Your task to perform on an android device: change alarm snooze length Image 0: 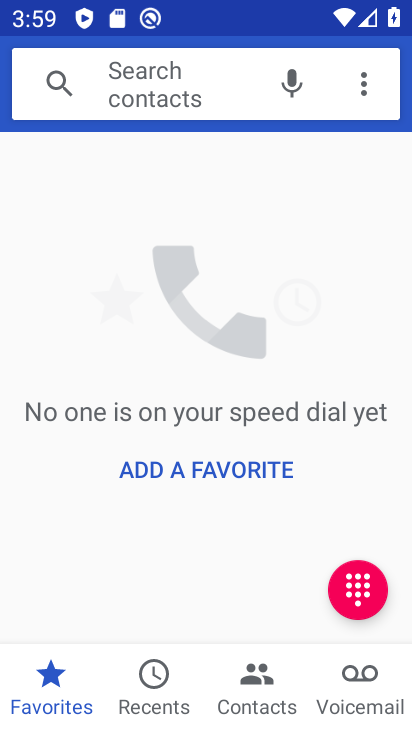
Step 0: press home button
Your task to perform on an android device: change alarm snooze length Image 1: 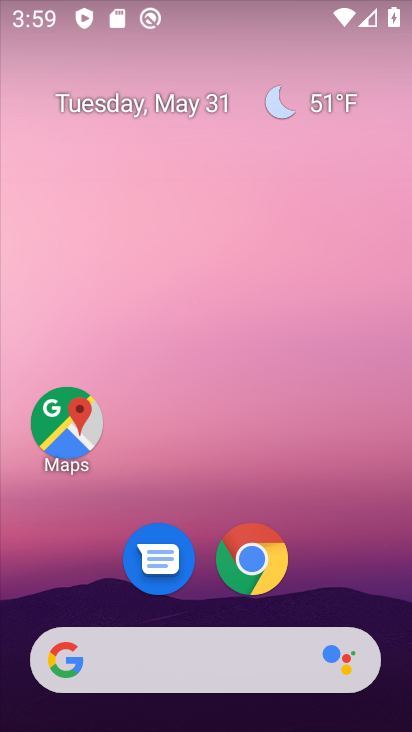
Step 1: drag from (347, 597) to (307, 48)
Your task to perform on an android device: change alarm snooze length Image 2: 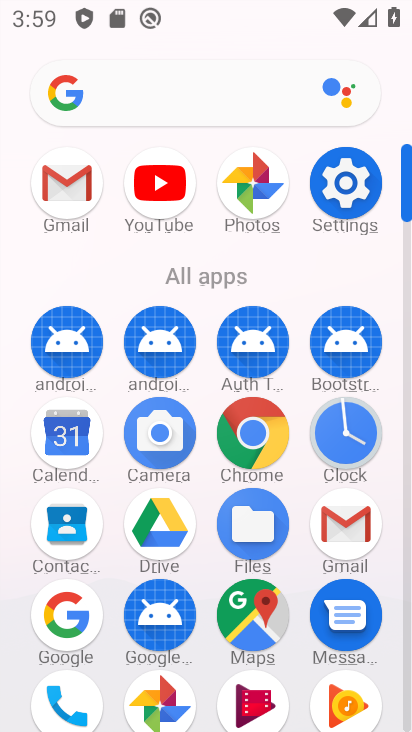
Step 2: click (338, 437)
Your task to perform on an android device: change alarm snooze length Image 3: 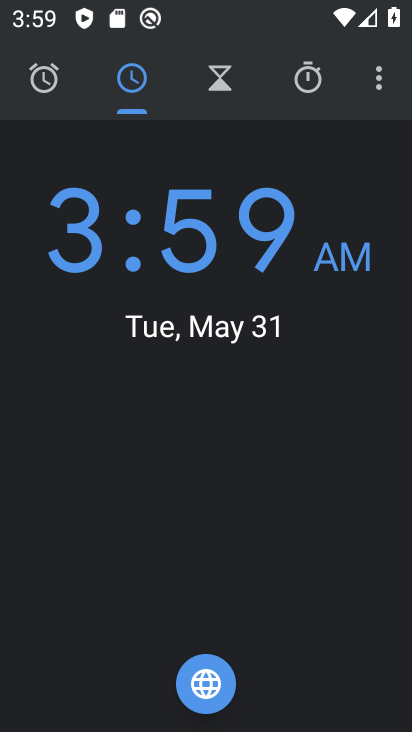
Step 3: click (376, 84)
Your task to perform on an android device: change alarm snooze length Image 4: 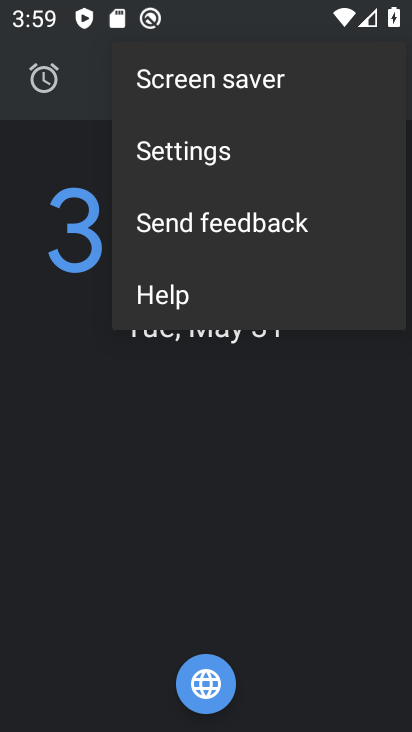
Step 4: click (189, 148)
Your task to perform on an android device: change alarm snooze length Image 5: 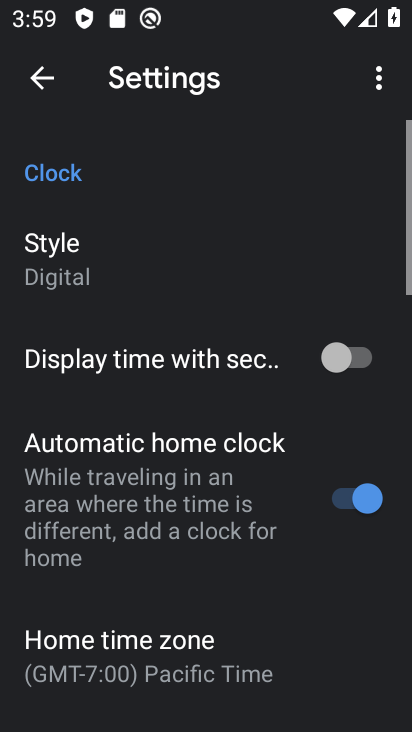
Step 5: drag from (195, 602) to (201, 249)
Your task to perform on an android device: change alarm snooze length Image 6: 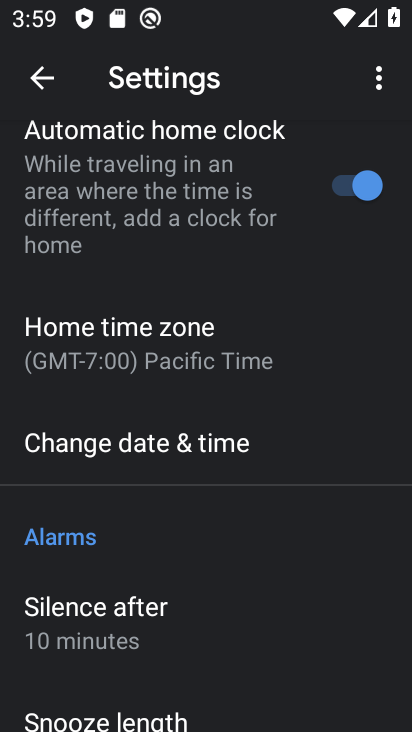
Step 6: drag from (136, 630) to (142, 274)
Your task to perform on an android device: change alarm snooze length Image 7: 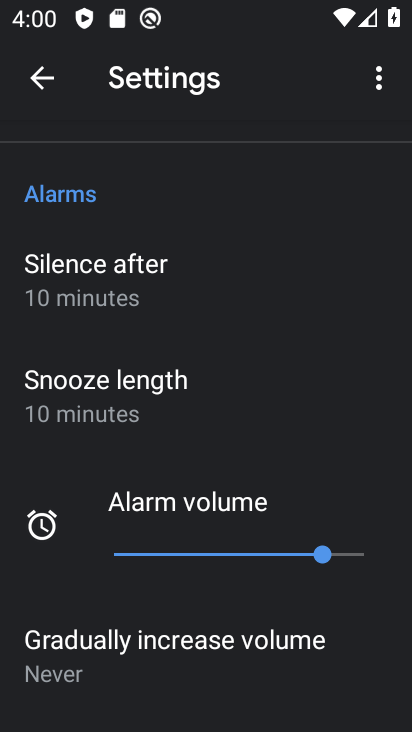
Step 7: click (97, 410)
Your task to perform on an android device: change alarm snooze length Image 8: 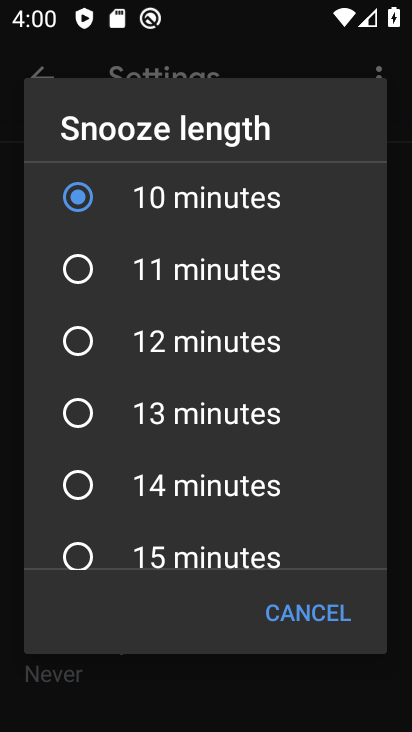
Step 8: click (216, 472)
Your task to perform on an android device: change alarm snooze length Image 9: 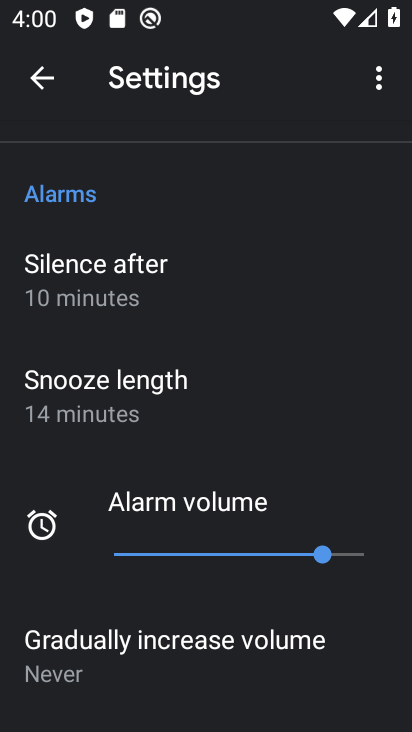
Step 9: task complete